Your task to perform on an android device: Search for Mexican restaurants on Maps Image 0: 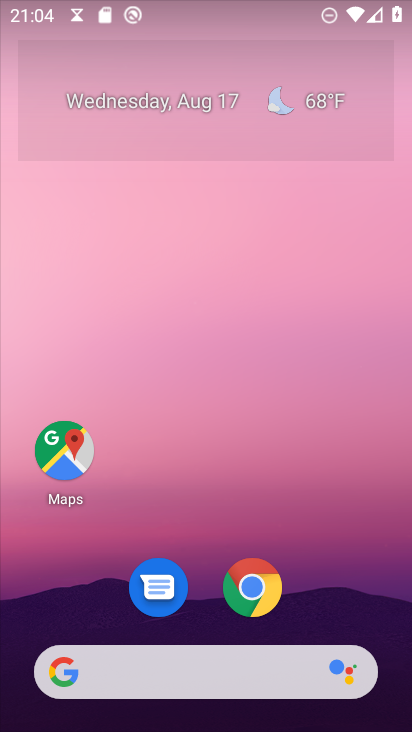
Step 0: drag from (22, 678) to (254, 198)
Your task to perform on an android device: Search for Mexican restaurants on Maps Image 1: 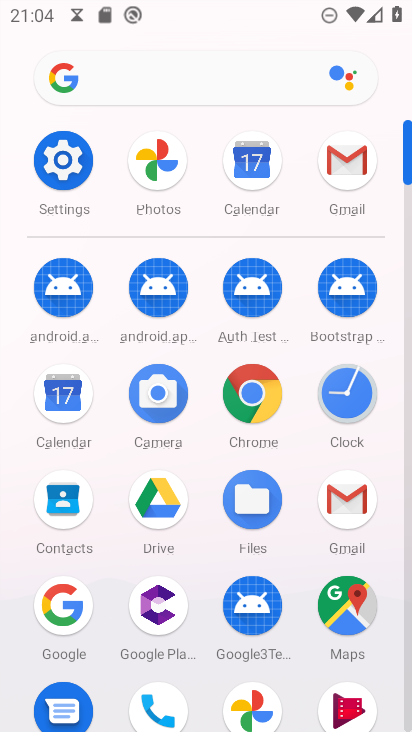
Step 1: click (338, 626)
Your task to perform on an android device: Search for Mexican restaurants on Maps Image 2: 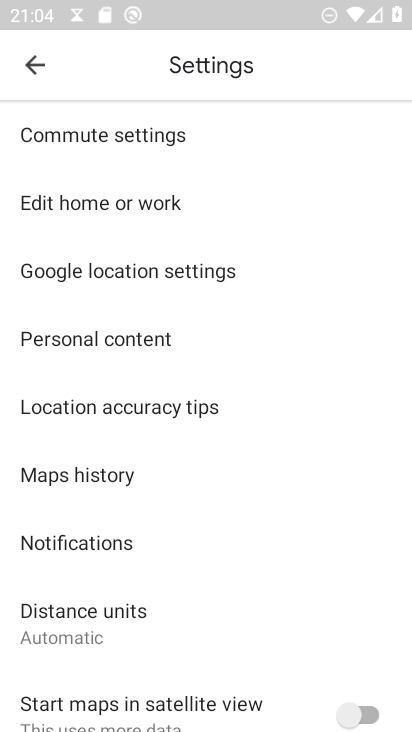
Step 2: press back button
Your task to perform on an android device: Search for Mexican restaurants on Maps Image 3: 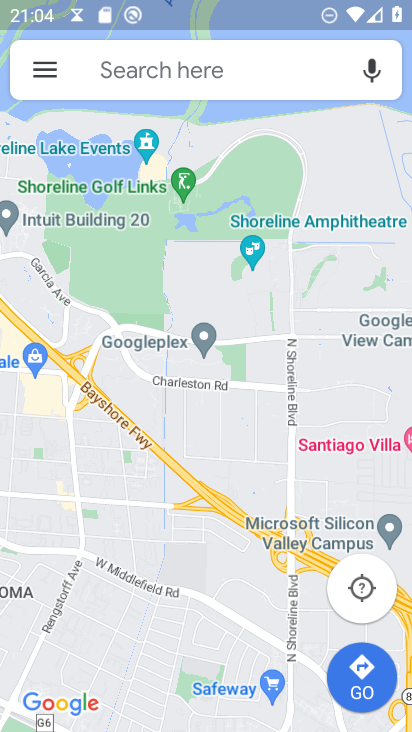
Step 3: click (104, 64)
Your task to perform on an android device: Search for Mexican restaurants on Maps Image 4: 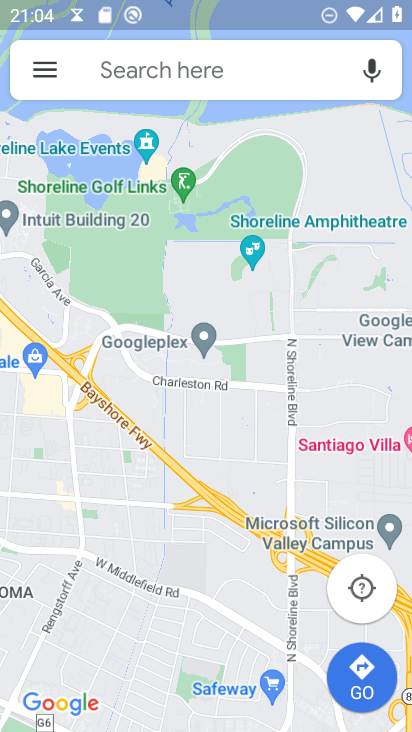
Step 4: click (104, 64)
Your task to perform on an android device: Search for Mexican restaurants on Maps Image 5: 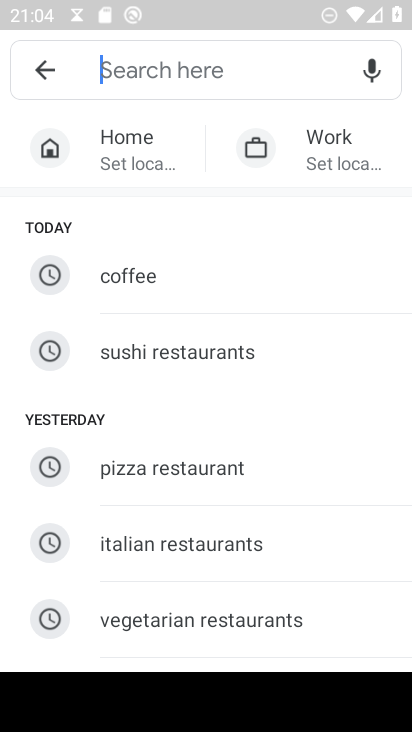
Step 5: type "Mexican restaurants"
Your task to perform on an android device: Search for Mexican restaurants on Maps Image 6: 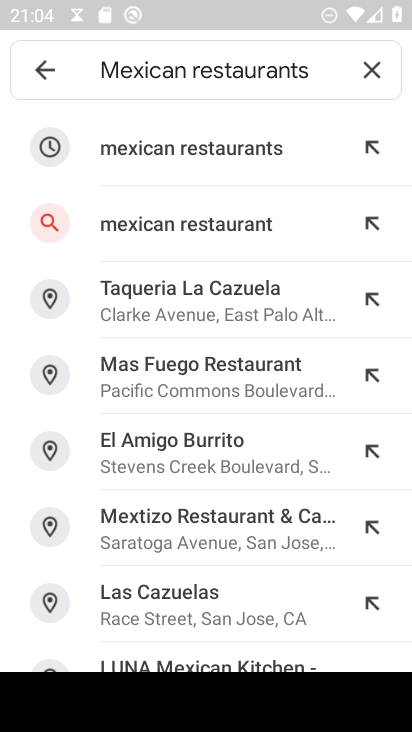
Step 6: click (237, 143)
Your task to perform on an android device: Search for Mexican restaurants on Maps Image 7: 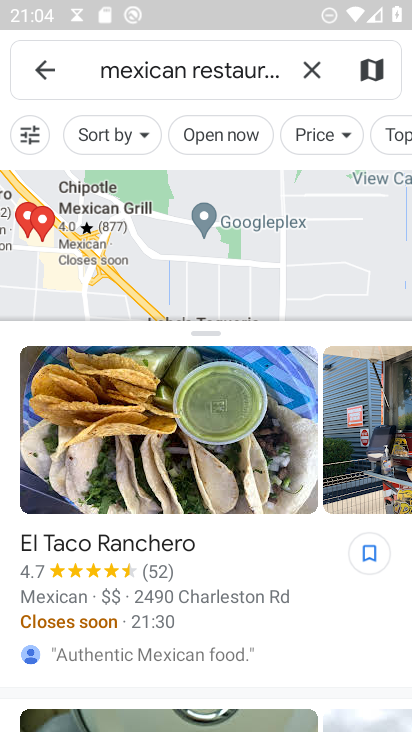
Step 7: task complete